Your task to perform on an android device: Open Chrome and go to settings Image 0: 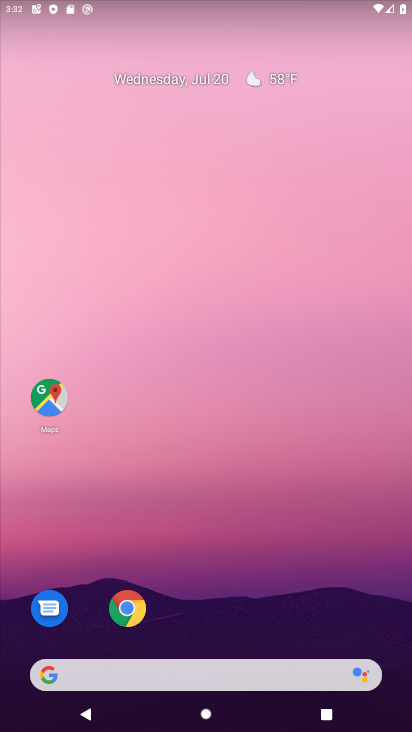
Step 0: click (118, 602)
Your task to perform on an android device: Open Chrome and go to settings Image 1: 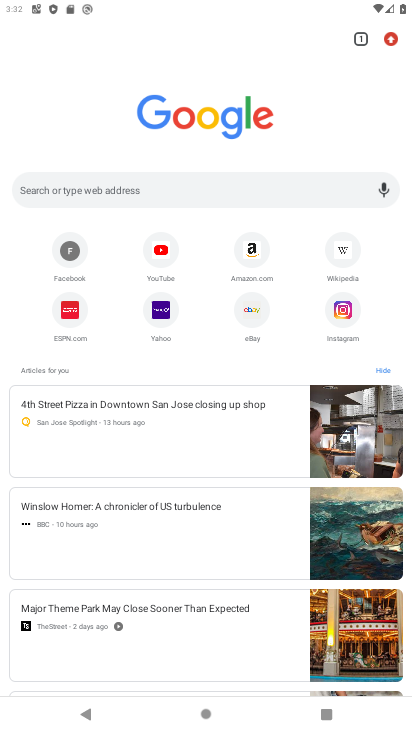
Step 1: click (386, 39)
Your task to perform on an android device: Open Chrome and go to settings Image 2: 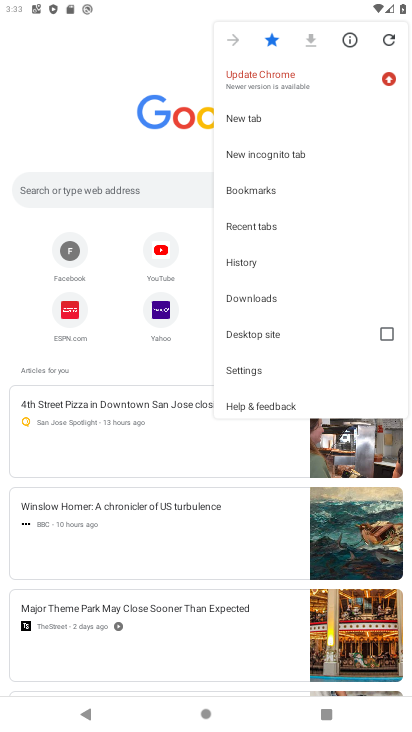
Step 2: click (252, 370)
Your task to perform on an android device: Open Chrome and go to settings Image 3: 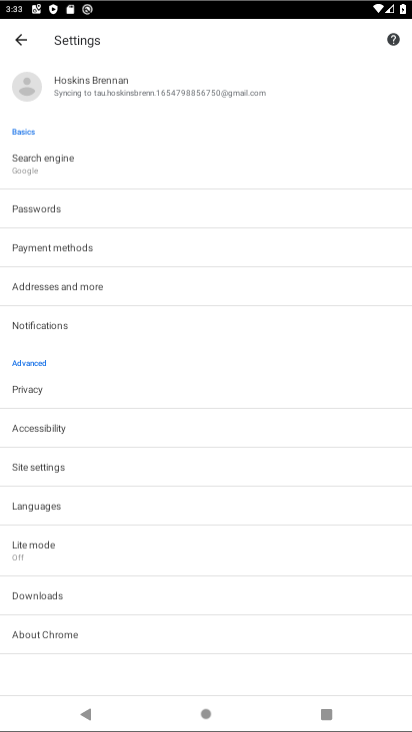
Step 3: task complete